Your task to perform on an android device: What's the weather today? Image 0: 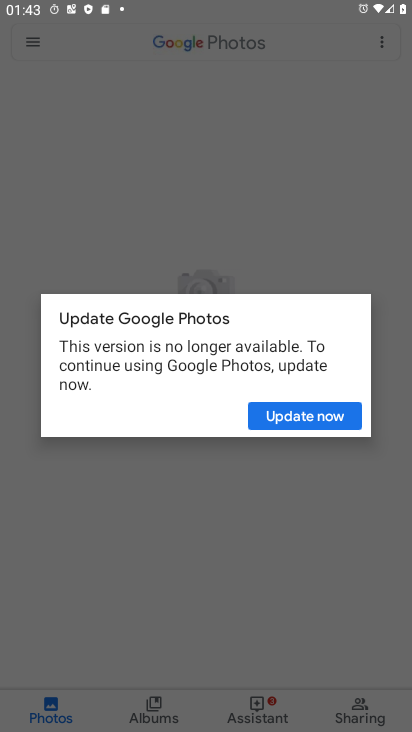
Step 0: press home button
Your task to perform on an android device: What's the weather today? Image 1: 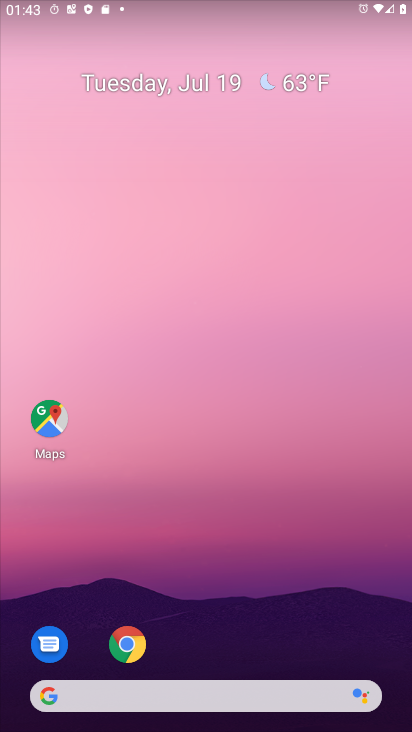
Step 1: drag from (218, 712) to (211, 4)
Your task to perform on an android device: What's the weather today? Image 2: 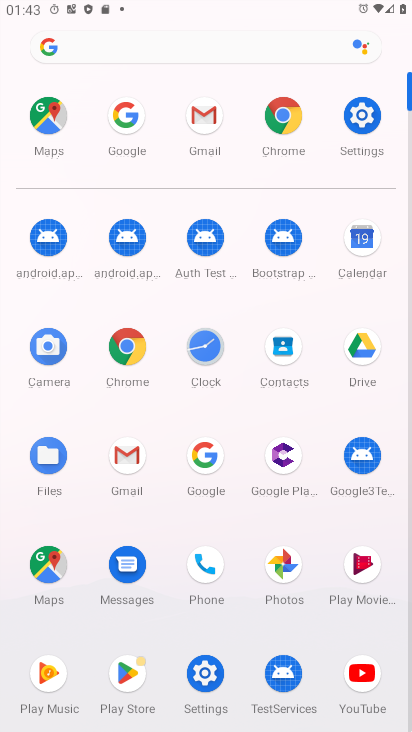
Step 2: click (205, 457)
Your task to perform on an android device: What's the weather today? Image 3: 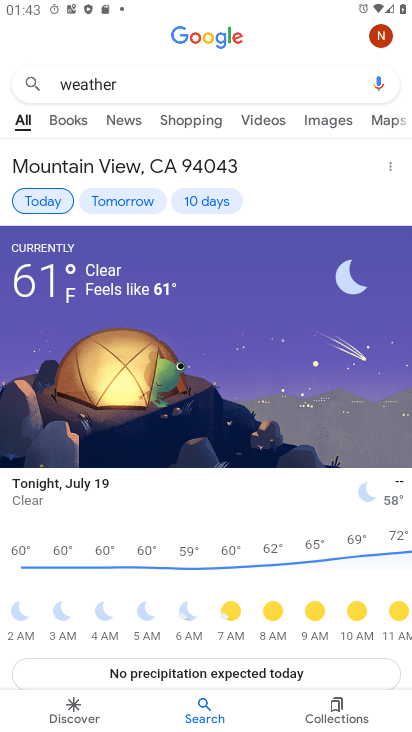
Step 3: click (37, 201)
Your task to perform on an android device: What's the weather today? Image 4: 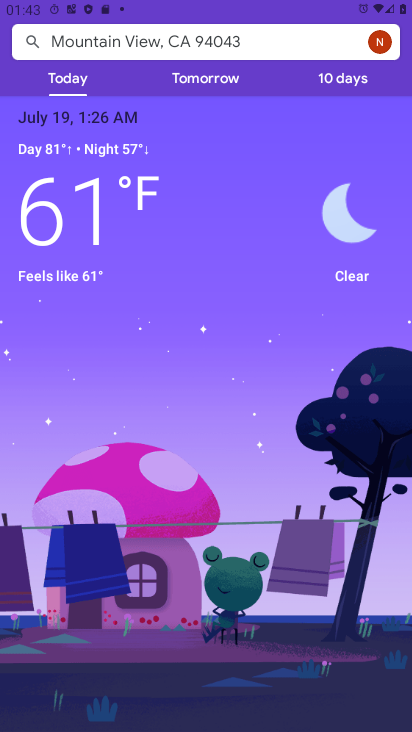
Step 4: task complete